Your task to perform on an android device: Open Youtube and go to "Your channel" Image 0: 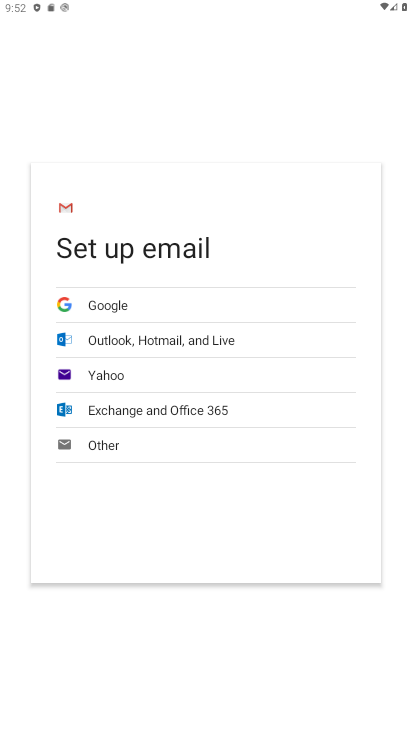
Step 0: press home button
Your task to perform on an android device: Open Youtube and go to "Your channel" Image 1: 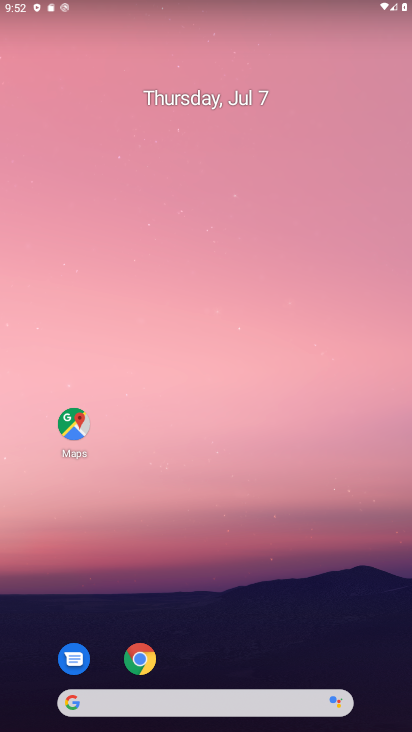
Step 1: click (381, 447)
Your task to perform on an android device: Open Youtube and go to "Your channel" Image 2: 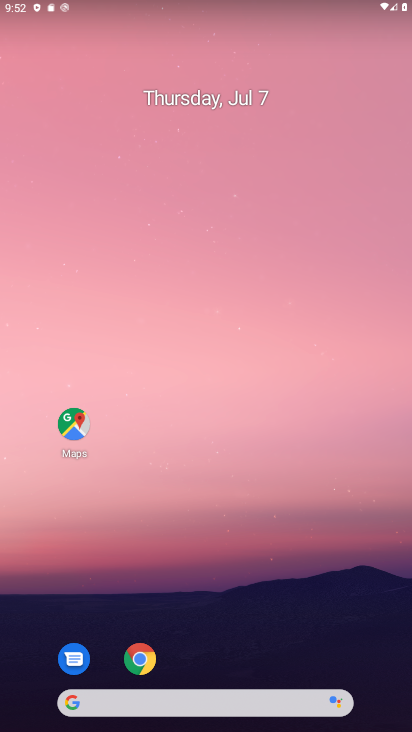
Step 2: drag from (195, 702) to (225, 147)
Your task to perform on an android device: Open Youtube and go to "Your channel" Image 3: 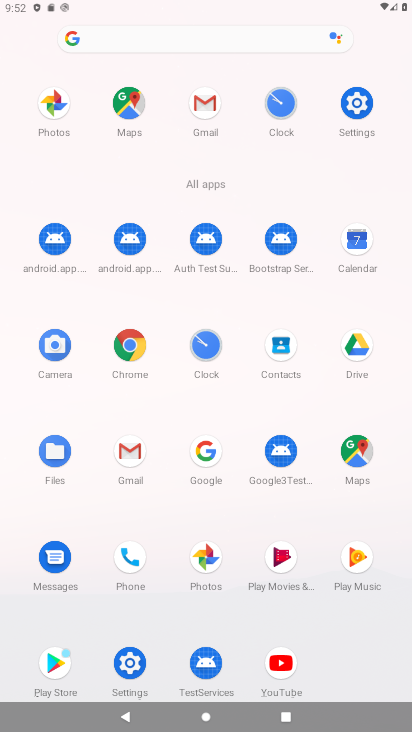
Step 3: click (275, 659)
Your task to perform on an android device: Open Youtube and go to "Your channel" Image 4: 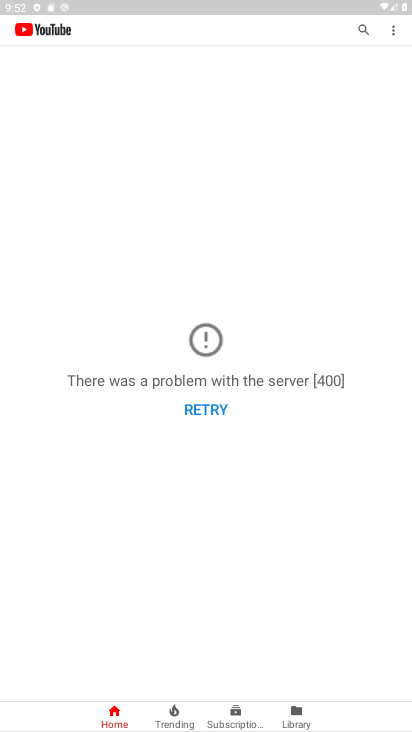
Step 4: click (206, 409)
Your task to perform on an android device: Open Youtube and go to "Your channel" Image 5: 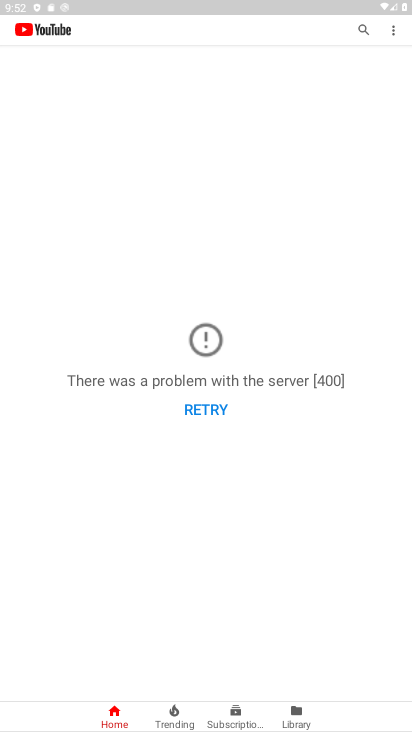
Step 5: click (291, 720)
Your task to perform on an android device: Open Youtube and go to "Your channel" Image 6: 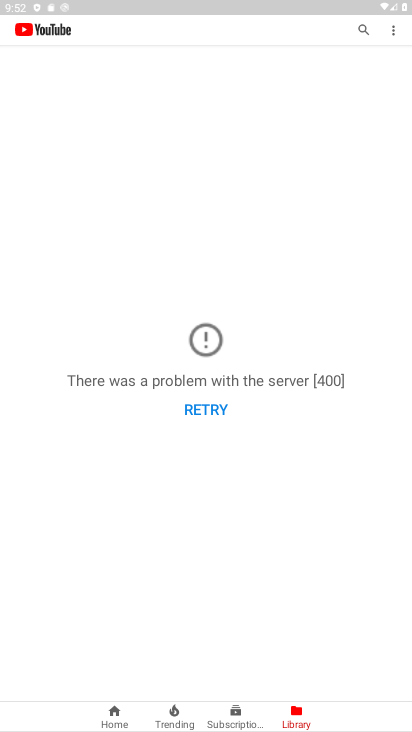
Step 6: task complete